Your task to perform on an android device: open chrome and create a bookmark for the current page Image 0: 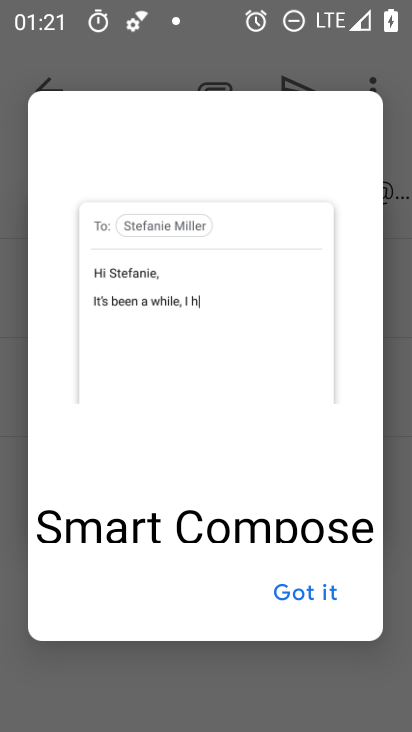
Step 0: press home button
Your task to perform on an android device: open chrome and create a bookmark for the current page Image 1: 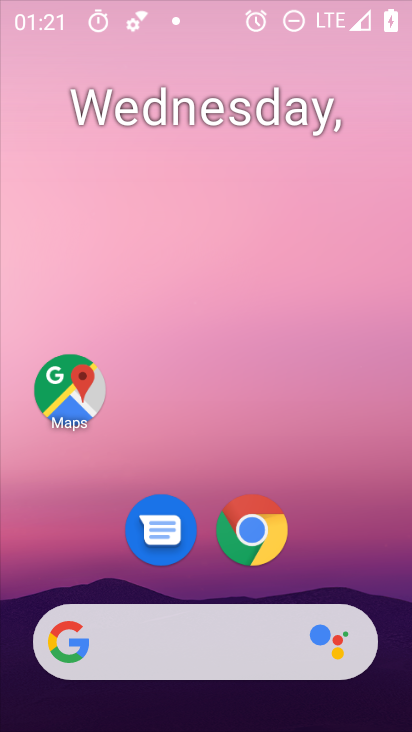
Step 1: drag from (287, 637) to (294, 61)
Your task to perform on an android device: open chrome and create a bookmark for the current page Image 2: 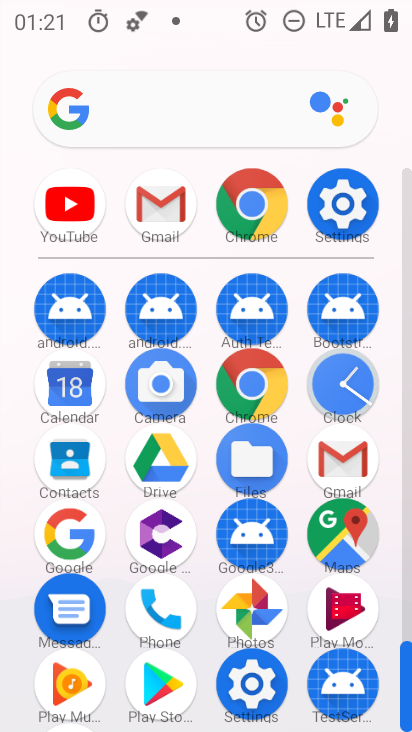
Step 2: click (272, 364)
Your task to perform on an android device: open chrome and create a bookmark for the current page Image 3: 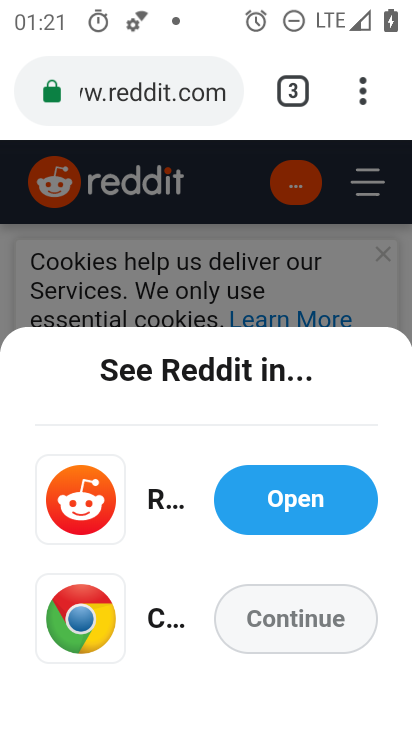
Step 3: task complete